Your task to perform on an android device: What is the news today? Image 0: 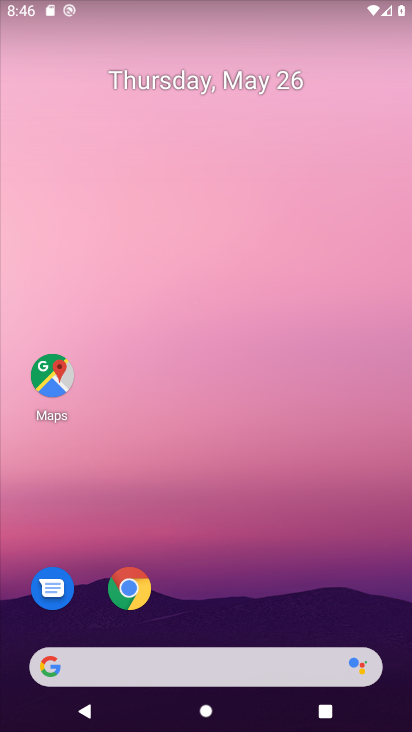
Step 0: click (150, 672)
Your task to perform on an android device: What is the news today? Image 1: 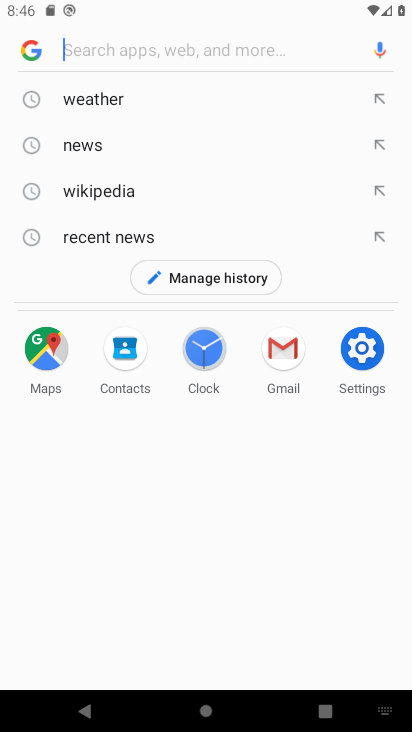
Step 1: type "what is the news today"
Your task to perform on an android device: What is the news today? Image 2: 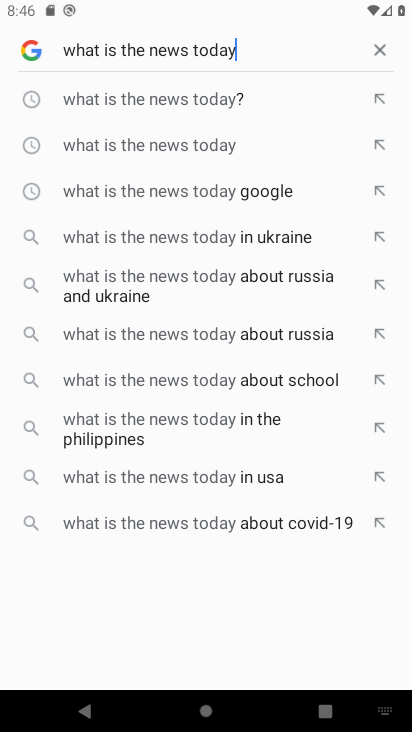
Step 2: click (245, 97)
Your task to perform on an android device: What is the news today? Image 3: 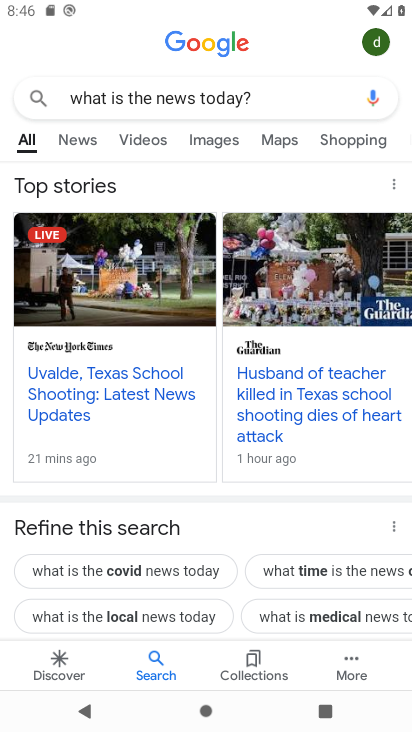
Step 3: click (81, 146)
Your task to perform on an android device: What is the news today? Image 4: 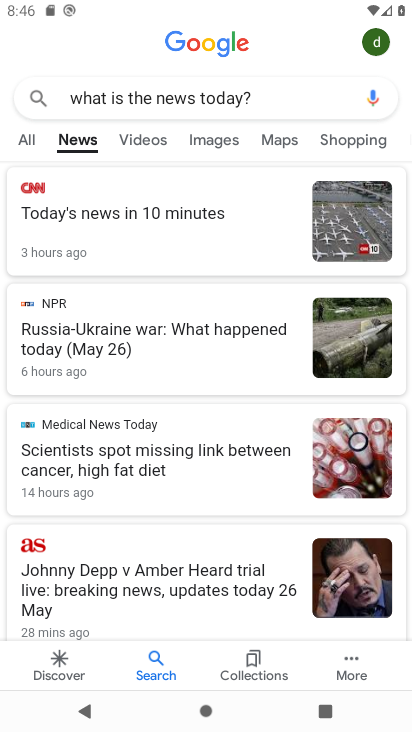
Step 4: task complete